Your task to perform on an android device: Open eBay Image 0: 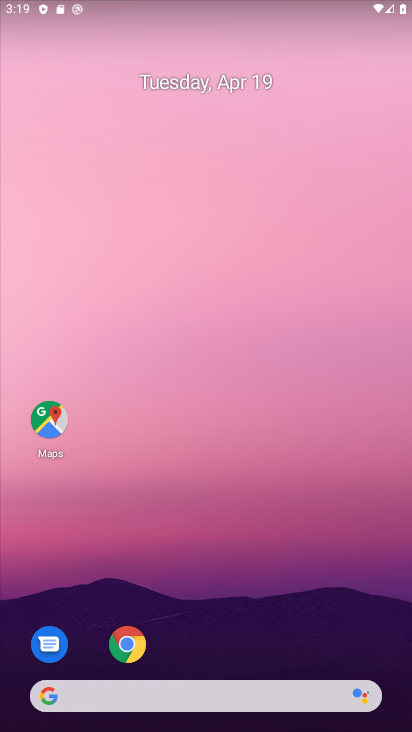
Step 0: click (124, 645)
Your task to perform on an android device: Open eBay Image 1: 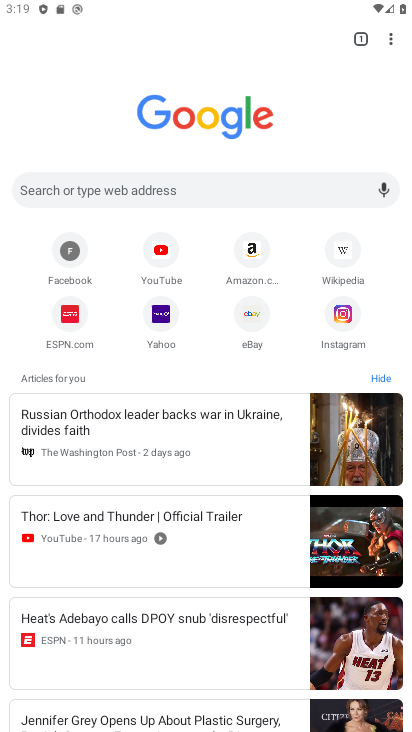
Step 1: click (388, 34)
Your task to perform on an android device: Open eBay Image 2: 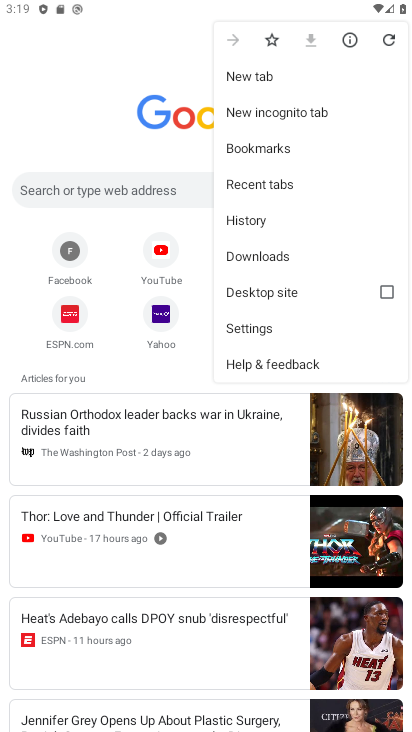
Step 2: click (103, 95)
Your task to perform on an android device: Open eBay Image 3: 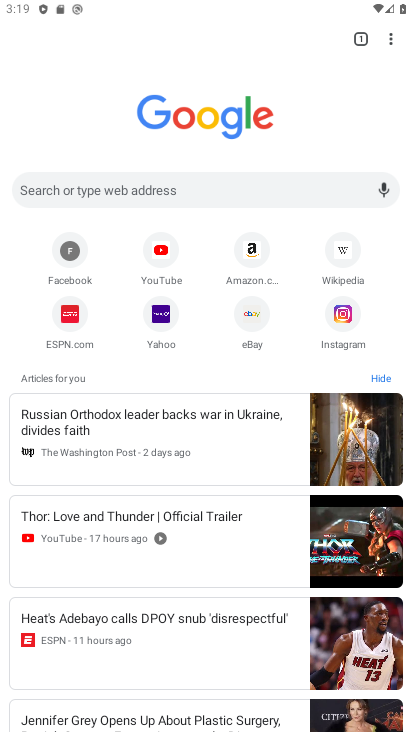
Step 3: click (170, 193)
Your task to perform on an android device: Open eBay Image 4: 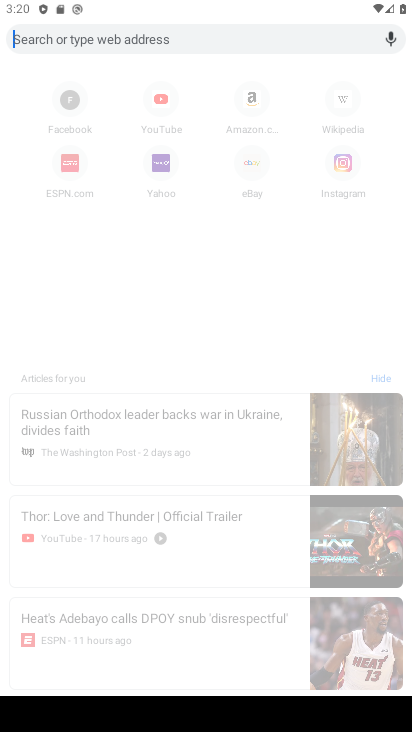
Step 4: type "eBay"
Your task to perform on an android device: Open eBay Image 5: 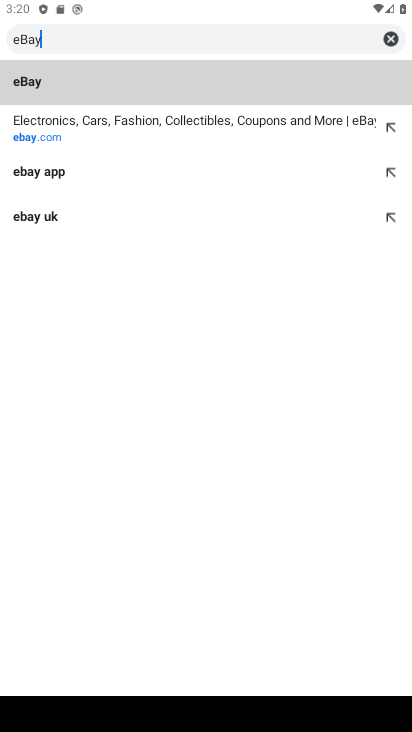
Step 5: click (43, 130)
Your task to perform on an android device: Open eBay Image 6: 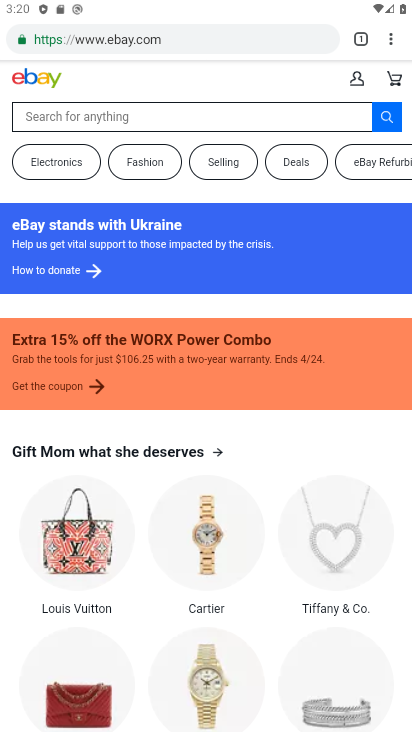
Step 6: task complete